Your task to perform on an android device: Show me popular videos on Youtube Image 0: 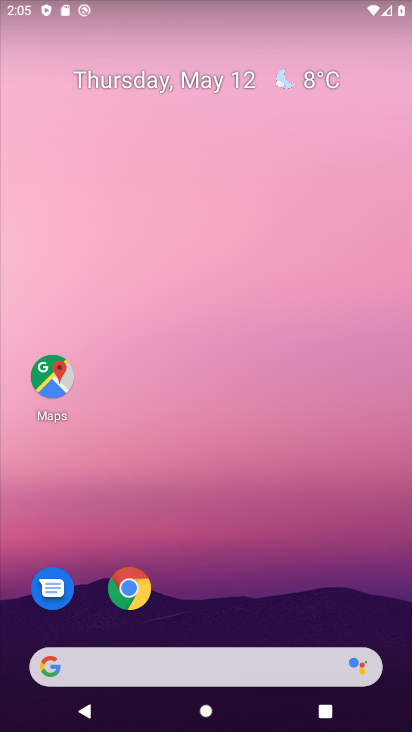
Step 0: drag from (225, 602) to (260, 132)
Your task to perform on an android device: Show me popular videos on Youtube Image 1: 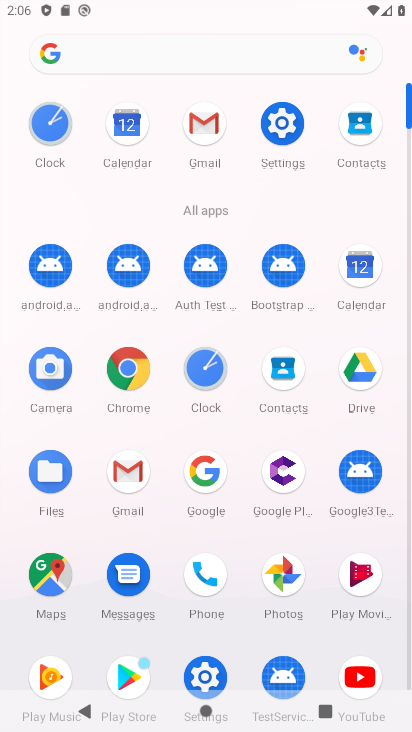
Step 1: click (368, 678)
Your task to perform on an android device: Show me popular videos on Youtube Image 2: 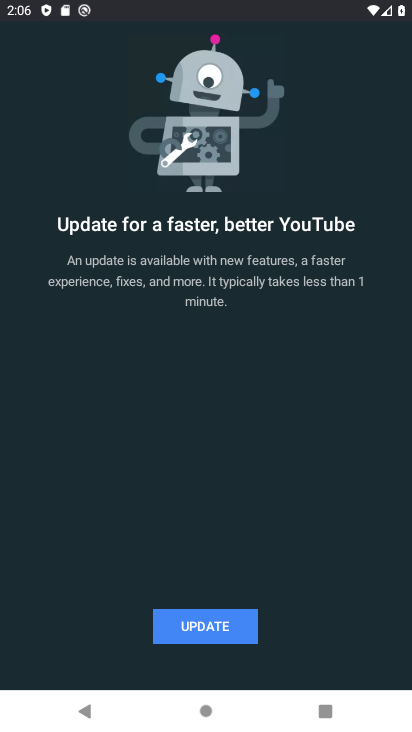
Step 2: click (199, 616)
Your task to perform on an android device: Show me popular videos on Youtube Image 3: 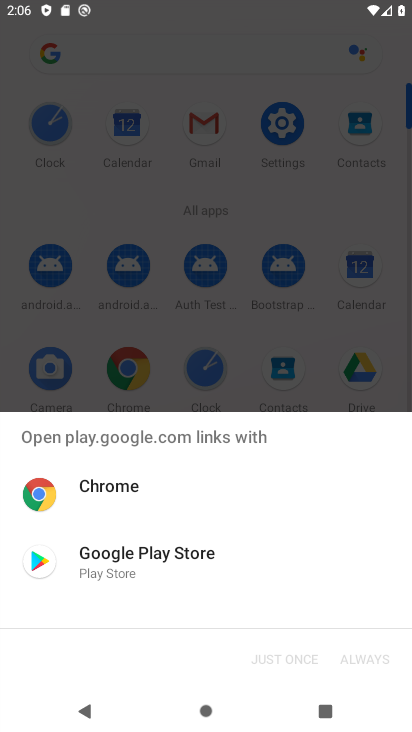
Step 3: click (179, 552)
Your task to perform on an android device: Show me popular videos on Youtube Image 4: 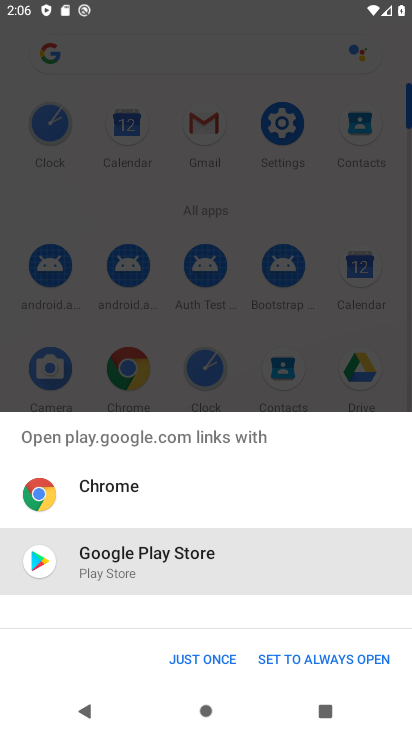
Step 4: click (204, 649)
Your task to perform on an android device: Show me popular videos on Youtube Image 5: 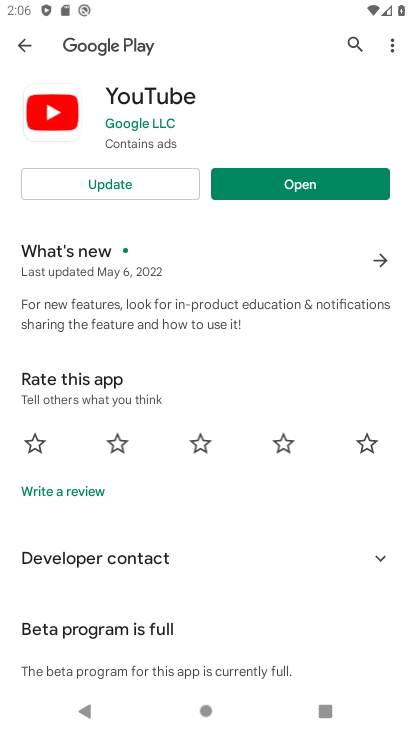
Step 5: click (115, 188)
Your task to perform on an android device: Show me popular videos on Youtube Image 6: 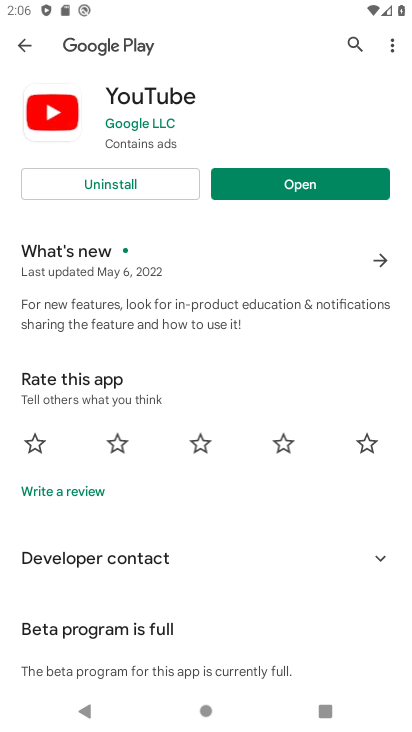
Step 6: click (351, 179)
Your task to perform on an android device: Show me popular videos on Youtube Image 7: 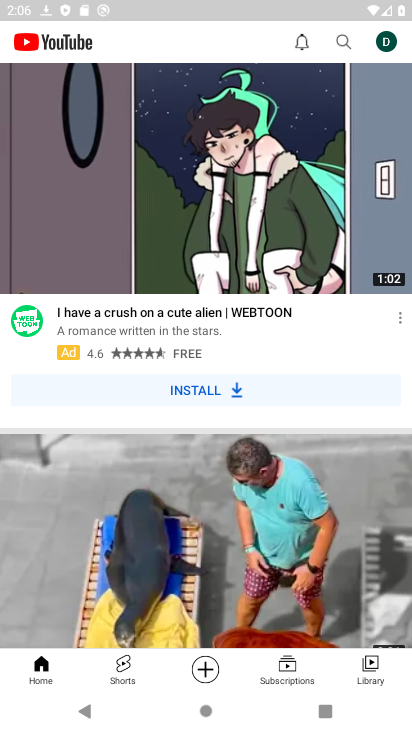
Step 7: task complete